Your task to perform on an android device: Open settings on Google Maps Image 0: 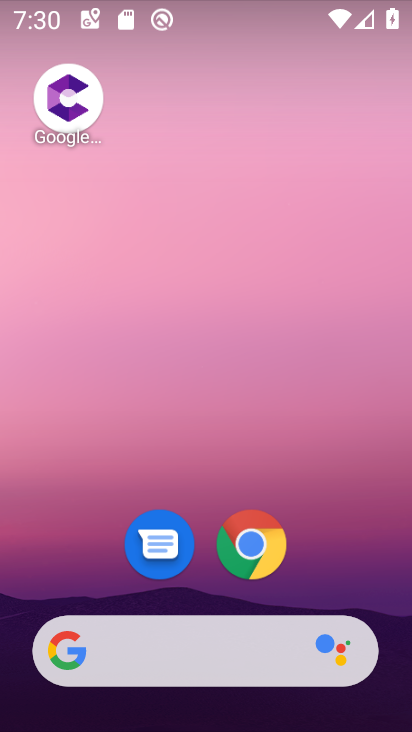
Step 0: drag from (269, 702) to (317, 278)
Your task to perform on an android device: Open settings on Google Maps Image 1: 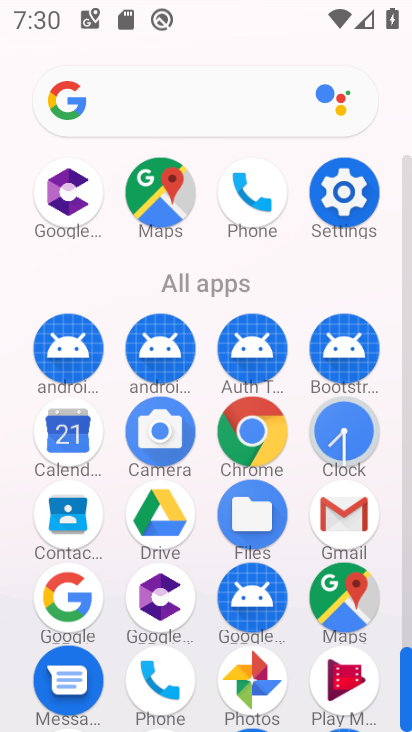
Step 1: click (337, 590)
Your task to perform on an android device: Open settings on Google Maps Image 2: 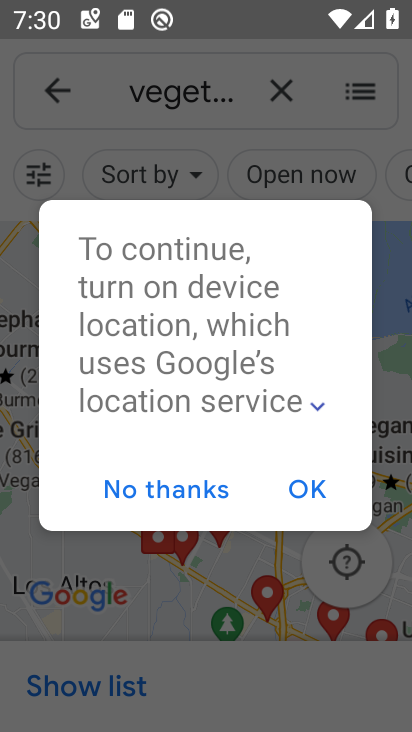
Step 2: click (179, 487)
Your task to perform on an android device: Open settings on Google Maps Image 3: 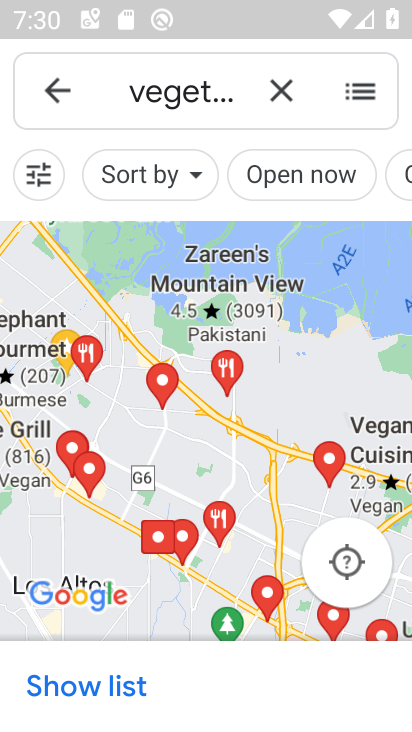
Step 3: click (53, 87)
Your task to perform on an android device: Open settings on Google Maps Image 4: 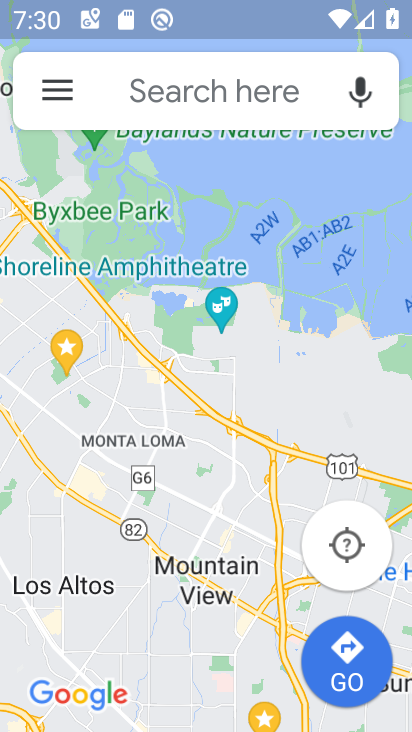
Step 4: click (53, 92)
Your task to perform on an android device: Open settings on Google Maps Image 5: 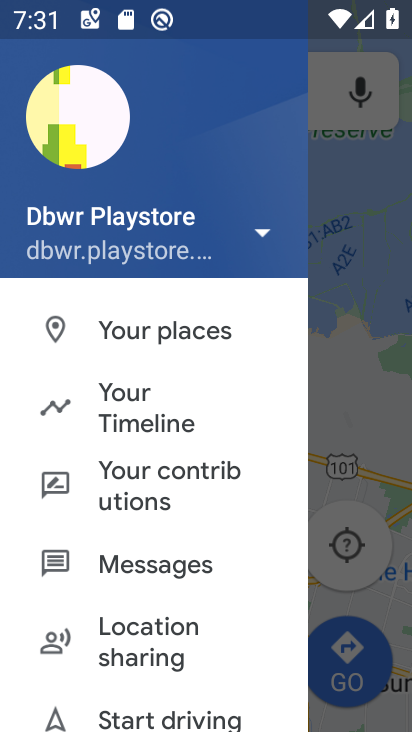
Step 5: drag from (119, 458) to (142, 183)
Your task to perform on an android device: Open settings on Google Maps Image 6: 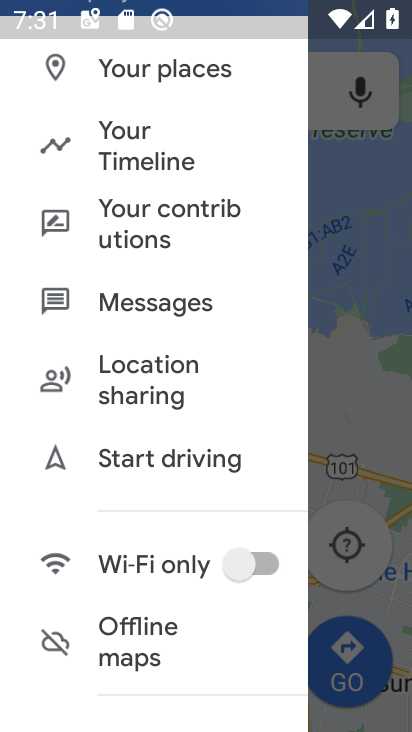
Step 6: drag from (127, 549) to (129, 326)
Your task to perform on an android device: Open settings on Google Maps Image 7: 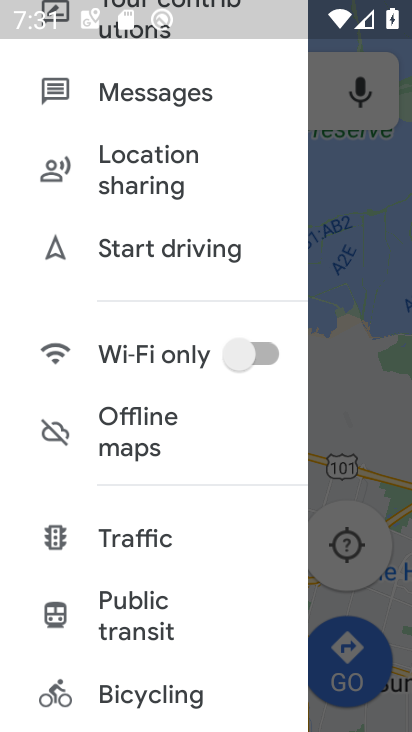
Step 7: drag from (108, 579) to (138, 296)
Your task to perform on an android device: Open settings on Google Maps Image 8: 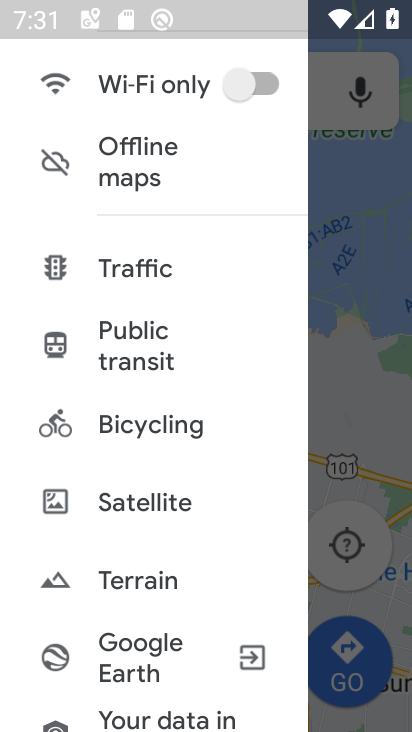
Step 8: drag from (143, 574) to (124, 251)
Your task to perform on an android device: Open settings on Google Maps Image 9: 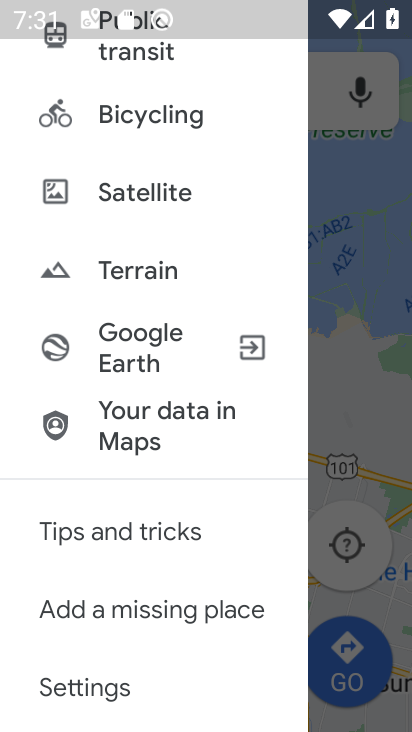
Step 9: click (88, 678)
Your task to perform on an android device: Open settings on Google Maps Image 10: 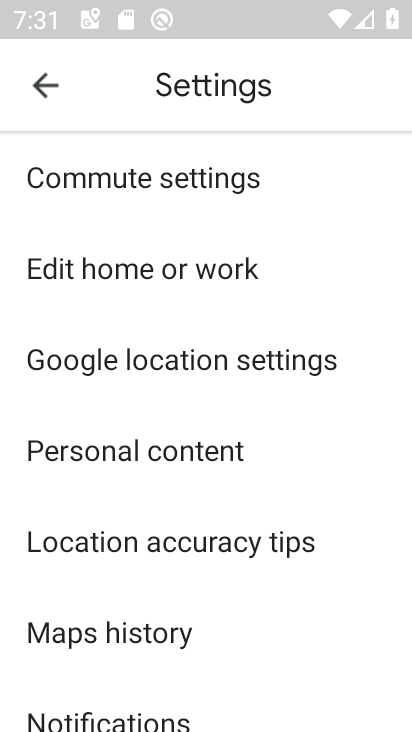
Step 10: task complete